Your task to perform on an android device: What's on my calendar today? Image 0: 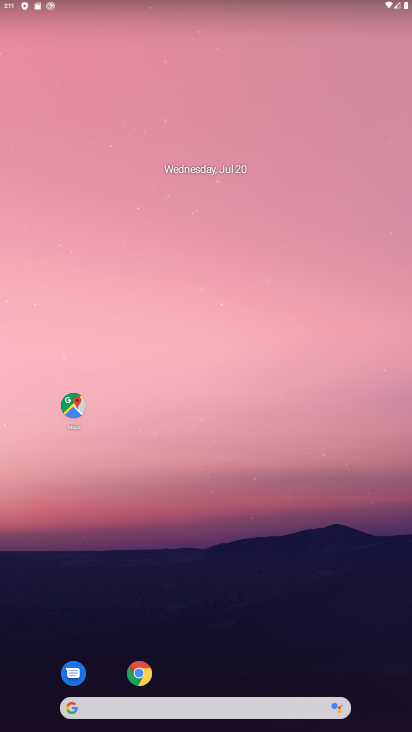
Step 0: drag from (232, 618) to (225, 277)
Your task to perform on an android device: What's on my calendar today? Image 1: 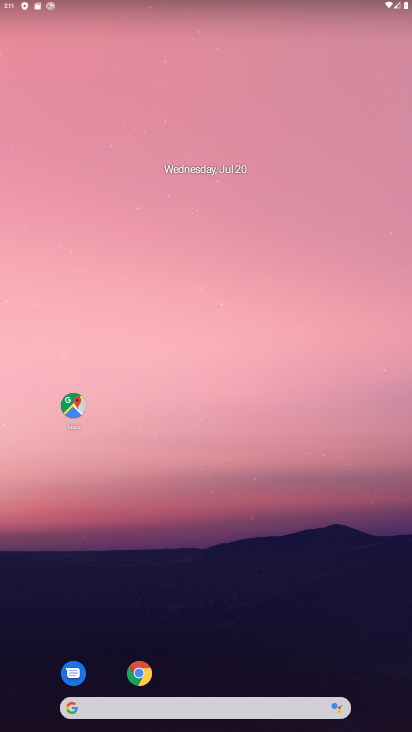
Step 1: drag from (211, 651) to (219, 180)
Your task to perform on an android device: What's on my calendar today? Image 2: 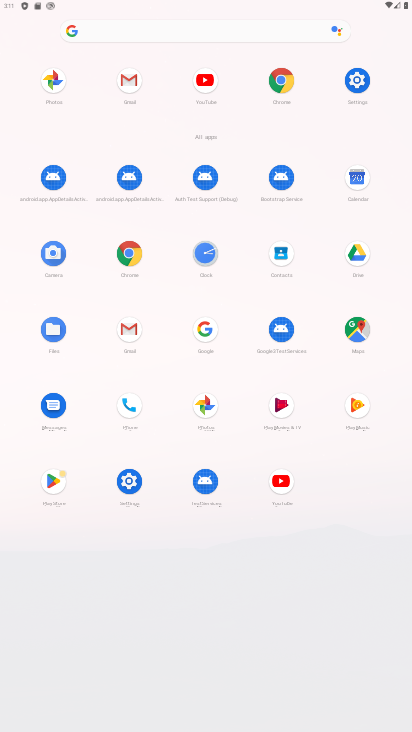
Step 2: click (358, 171)
Your task to perform on an android device: What's on my calendar today? Image 3: 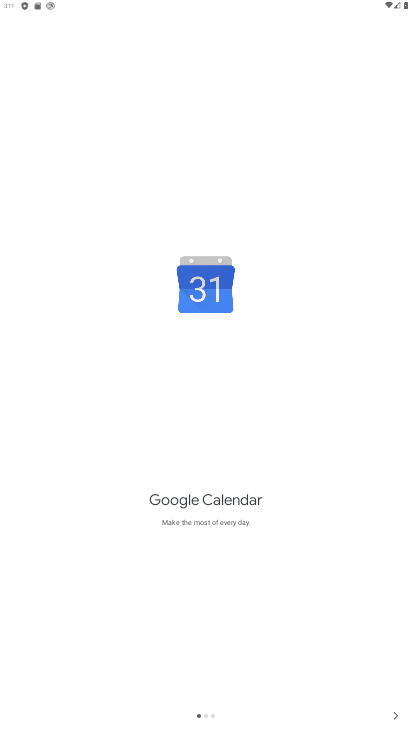
Step 3: click (395, 714)
Your task to perform on an android device: What's on my calendar today? Image 4: 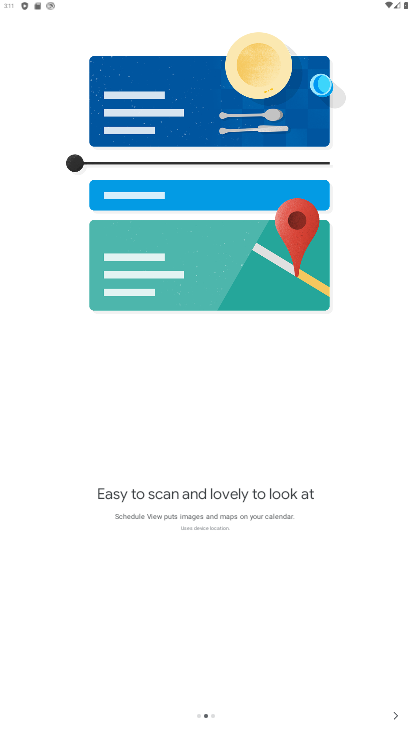
Step 4: click (395, 714)
Your task to perform on an android device: What's on my calendar today? Image 5: 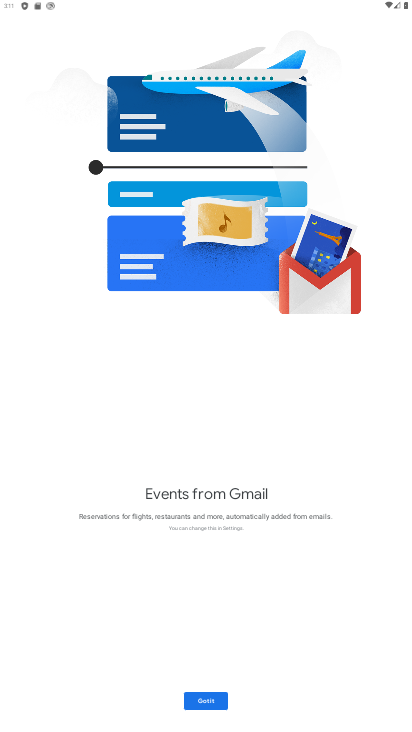
Step 5: click (395, 714)
Your task to perform on an android device: What's on my calendar today? Image 6: 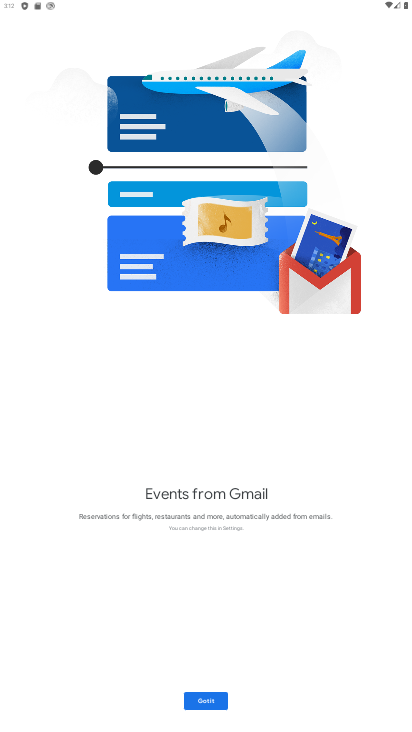
Step 6: click (215, 699)
Your task to perform on an android device: What's on my calendar today? Image 7: 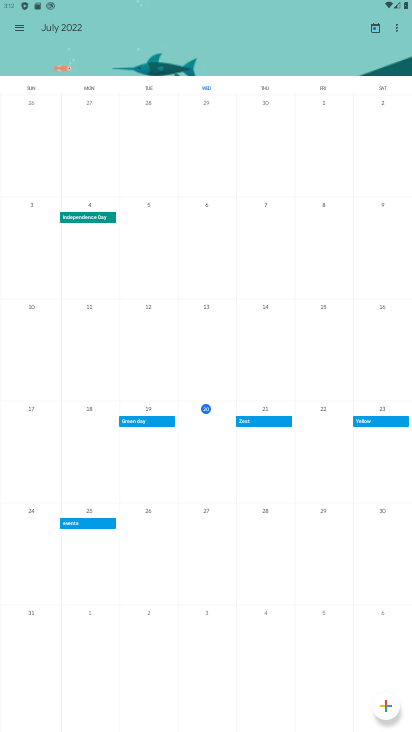
Step 7: task complete